Your task to perform on an android device: open device folders in google photos Image 0: 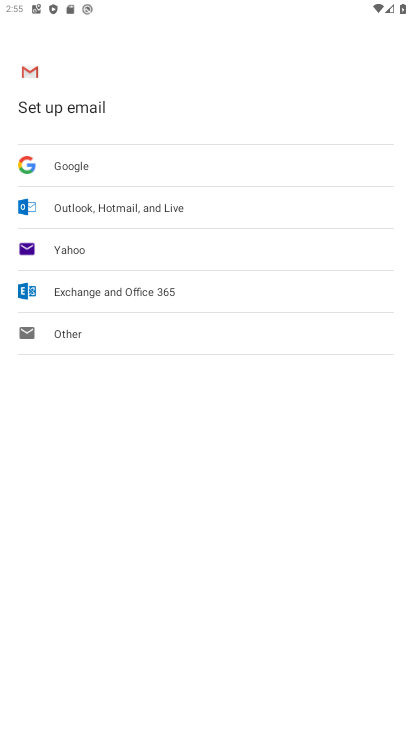
Step 0: drag from (260, 645) to (269, 170)
Your task to perform on an android device: open device folders in google photos Image 1: 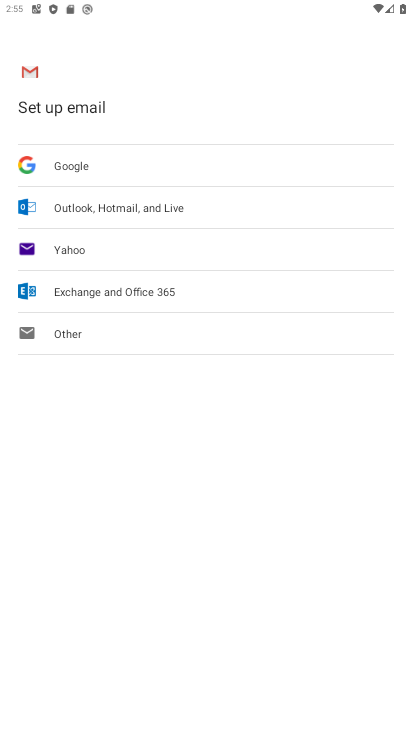
Step 1: press home button
Your task to perform on an android device: open device folders in google photos Image 2: 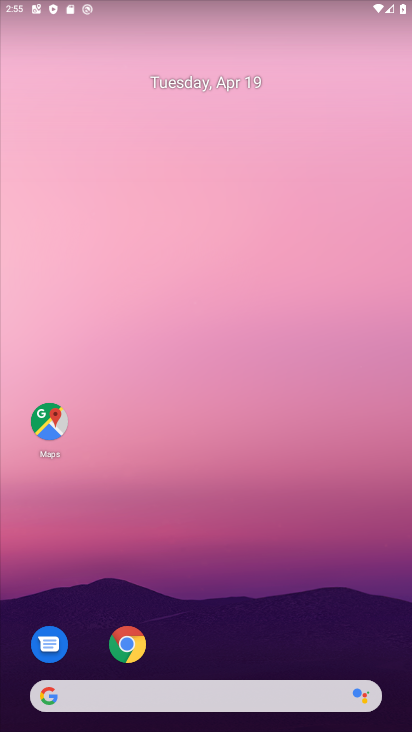
Step 2: drag from (218, 599) to (318, 127)
Your task to perform on an android device: open device folders in google photos Image 3: 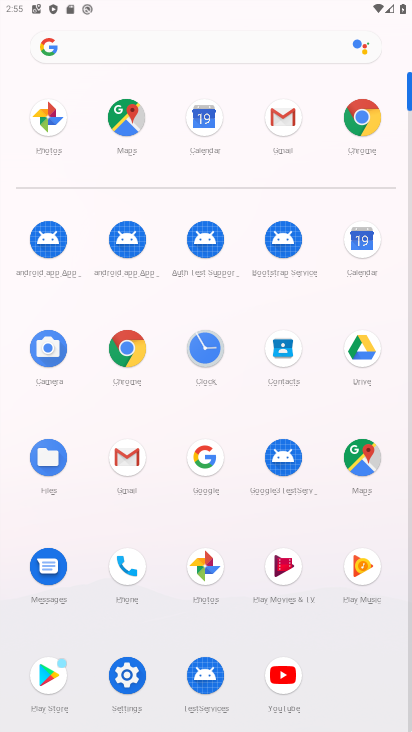
Step 3: click (202, 560)
Your task to perform on an android device: open device folders in google photos Image 4: 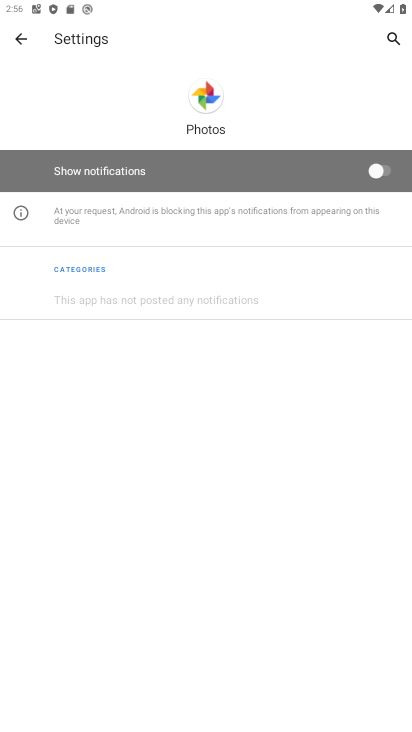
Step 4: click (16, 36)
Your task to perform on an android device: open device folders in google photos Image 5: 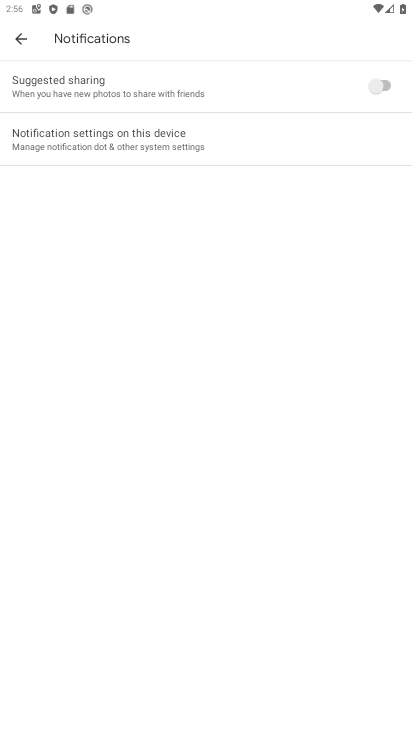
Step 5: click (17, 42)
Your task to perform on an android device: open device folders in google photos Image 6: 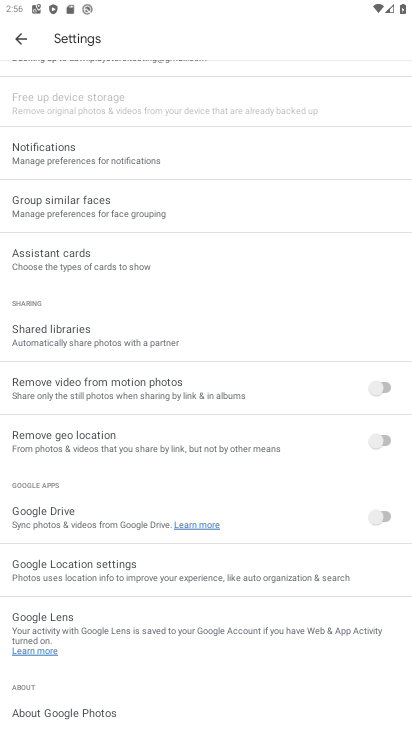
Step 6: click (22, 36)
Your task to perform on an android device: open device folders in google photos Image 7: 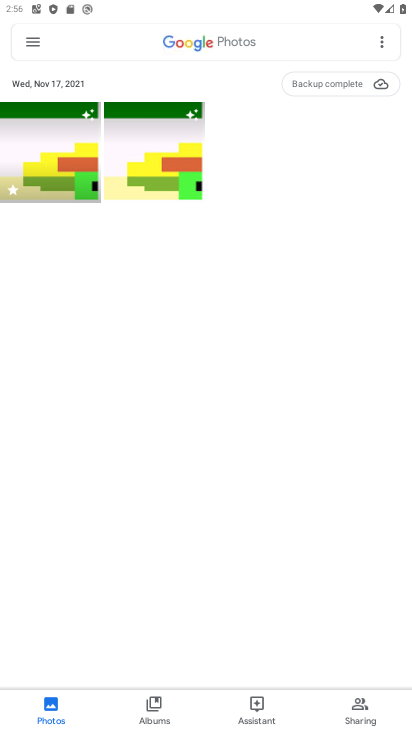
Step 7: click (30, 39)
Your task to perform on an android device: open device folders in google photos Image 8: 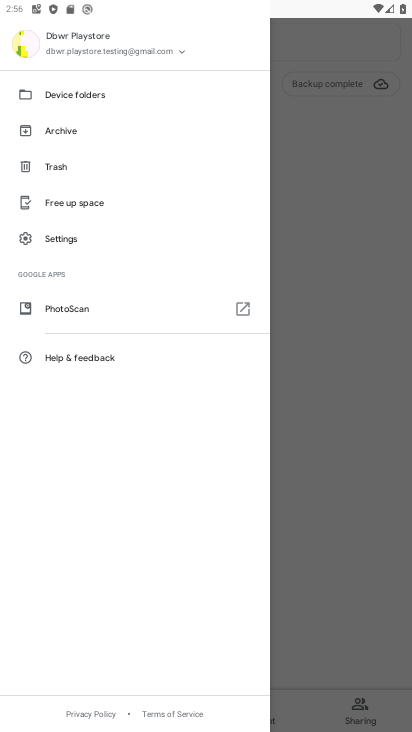
Step 8: click (101, 96)
Your task to perform on an android device: open device folders in google photos Image 9: 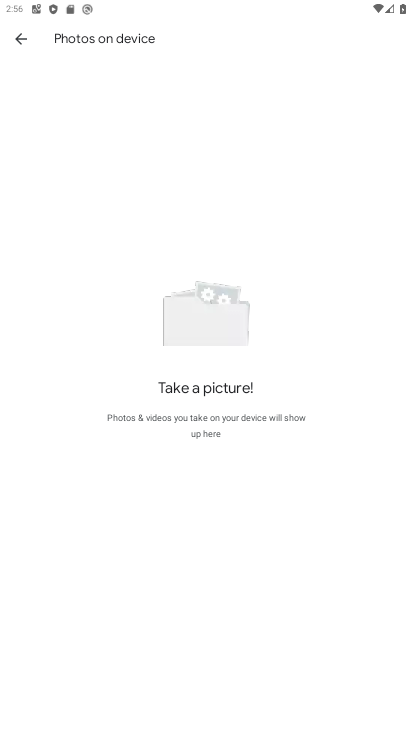
Step 9: task complete